Your task to perform on an android device: Open Google Maps Image 0: 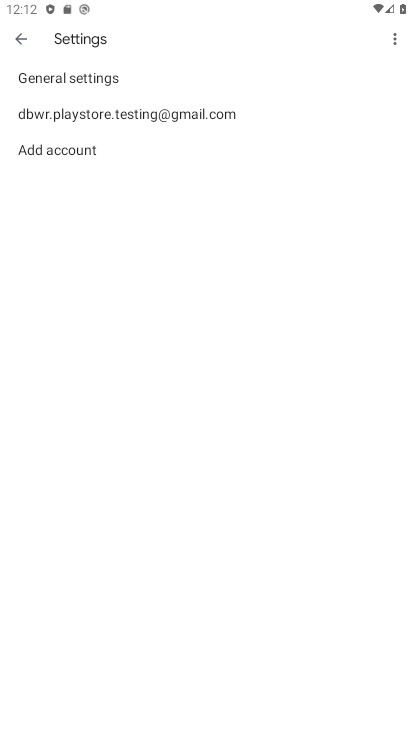
Step 0: press home button
Your task to perform on an android device: Open Google Maps Image 1: 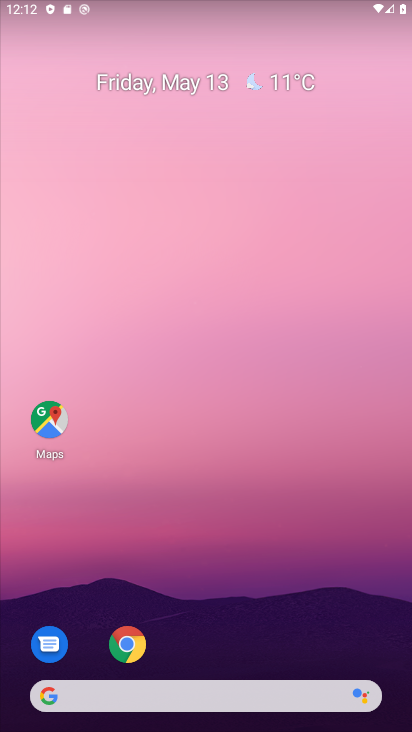
Step 1: drag from (217, 727) to (216, 104)
Your task to perform on an android device: Open Google Maps Image 2: 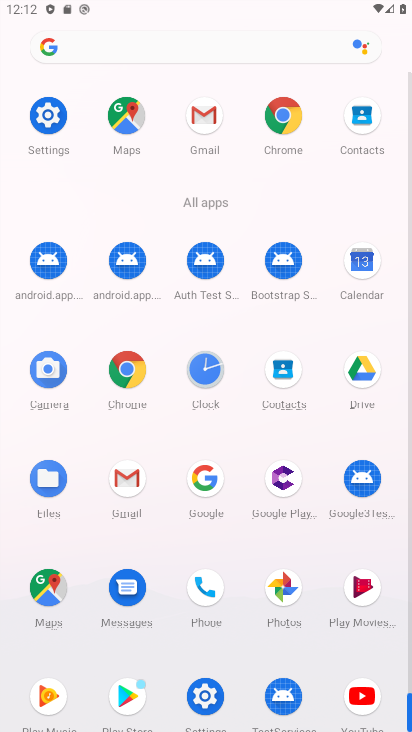
Step 2: click (122, 112)
Your task to perform on an android device: Open Google Maps Image 3: 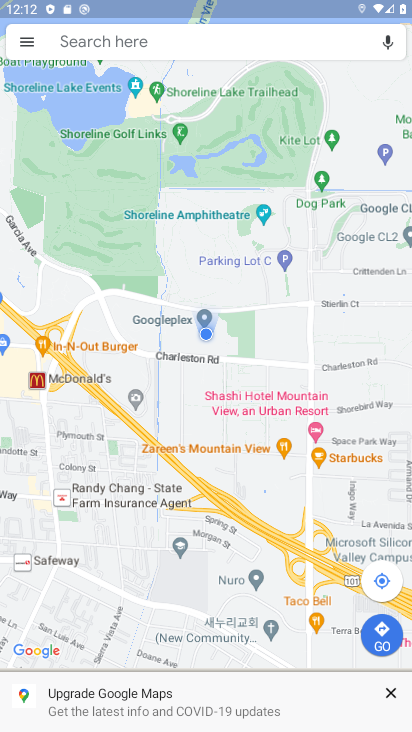
Step 3: task complete